Your task to perform on an android device: What is the news today? Image 0: 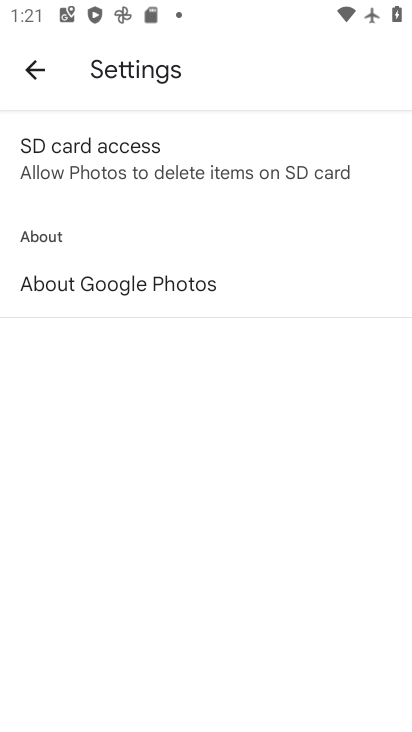
Step 0: press home button
Your task to perform on an android device: What is the news today? Image 1: 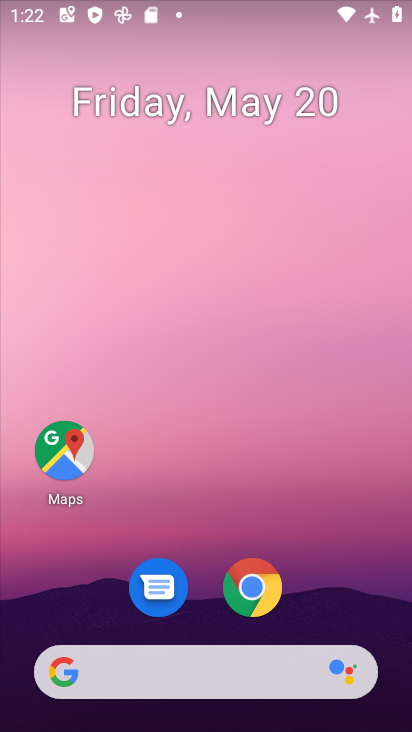
Step 1: task complete